Your task to perform on an android device: Open Google Maps and go to "Timeline" Image 0: 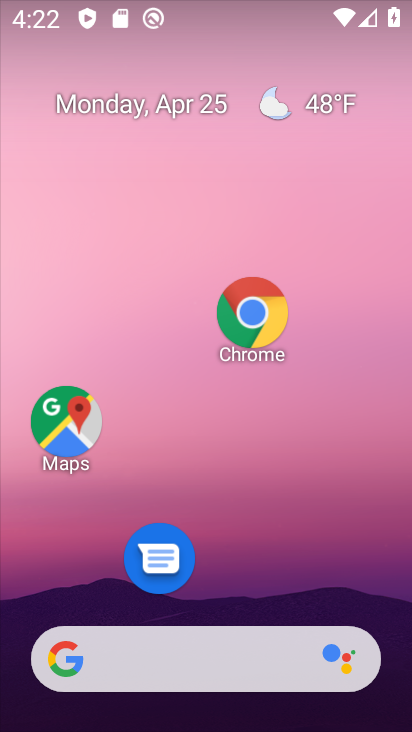
Step 0: drag from (350, 386) to (408, 484)
Your task to perform on an android device: Open Google Maps and go to "Timeline" Image 1: 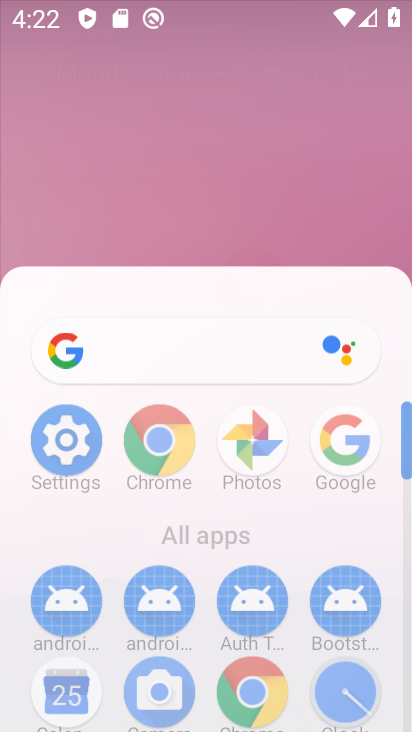
Step 1: drag from (362, 403) to (410, 211)
Your task to perform on an android device: Open Google Maps and go to "Timeline" Image 2: 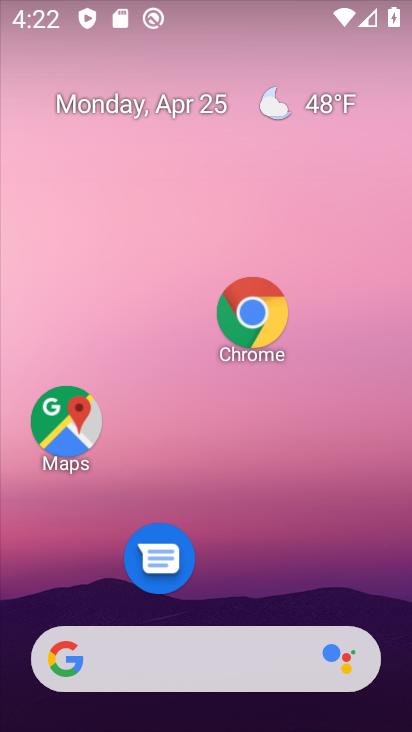
Step 2: drag from (389, 369) to (372, 89)
Your task to perform on an android device: Open Google Maps and go to "Timeline" Image 3: 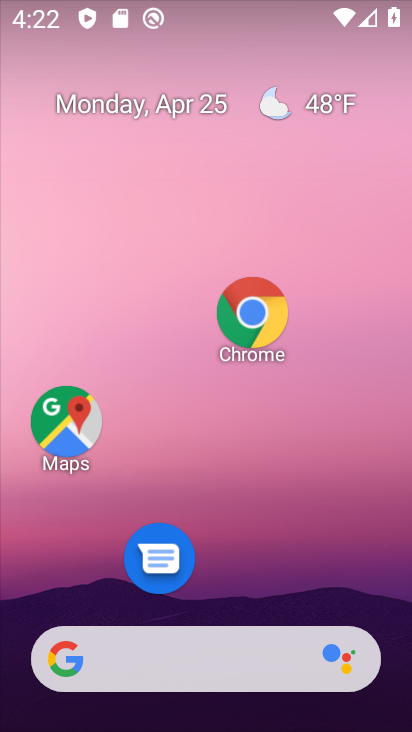
Step 3: drag from (371, 556) to (319, 45)
Your task to perform on an android device: Open Google Maps and go to "Timeline" Image 4: 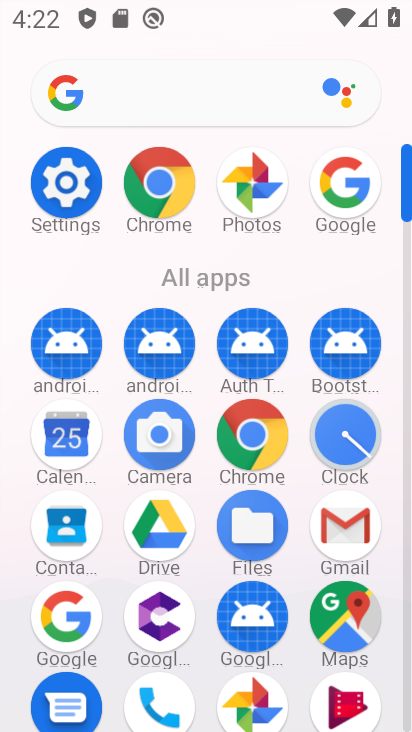
Step 4: drag from (388, 538) to (345, 244)
Your task to perform on an android device: Open Google Maps and go to "Timeline" Image 5: 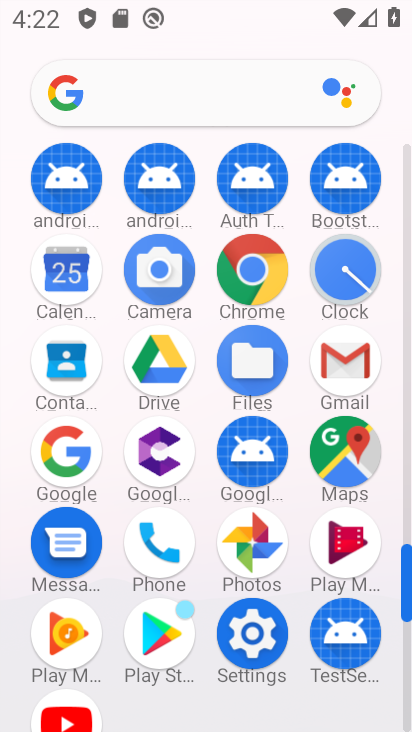
Step 5: click (337, 486)
Your task to perform on an android device: Open Google Maps and go to "Timeline" Image 6: 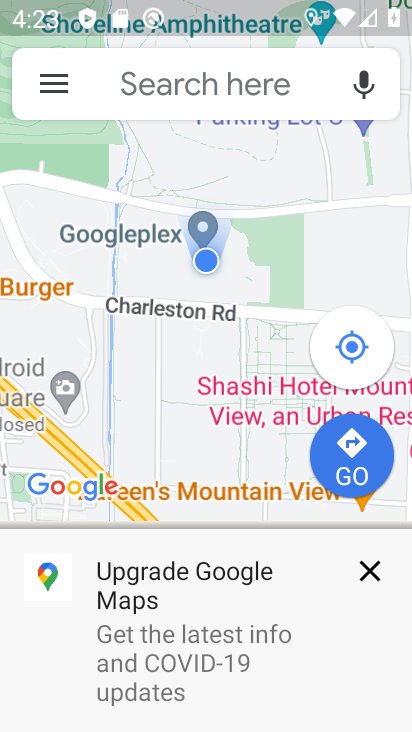
Step 6: click (44, 88)
Your task to perform on an android device: Open Google Maps and go to "Timeline" Image 7: 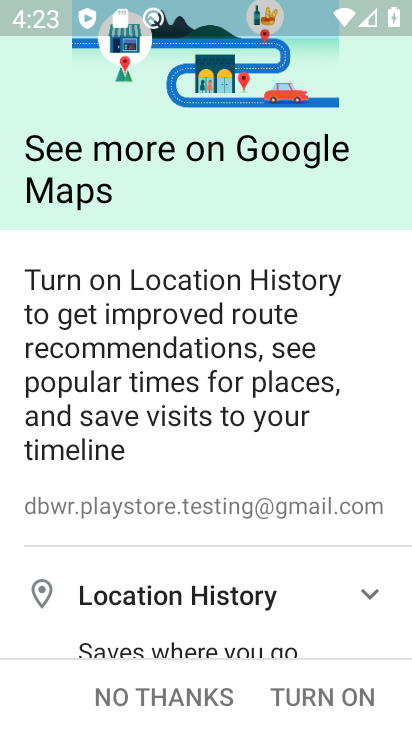
Step 7: click (195, 719)
Your task to perform on an android device: Open Google Maps and go to "Timeline" Image 8: 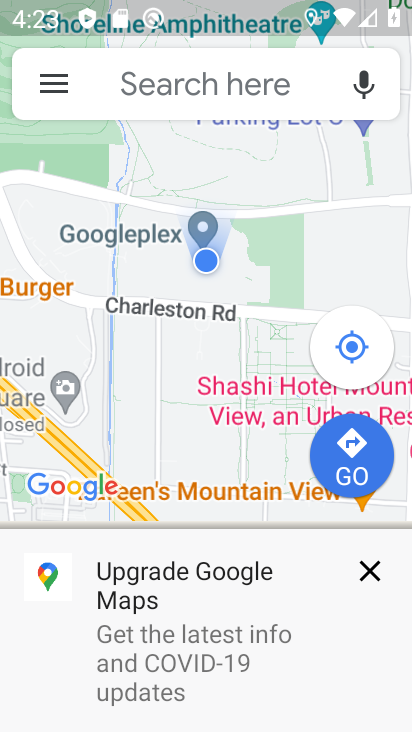
Step 8: click (48, 95)
Your task to perform on an android device: Open Google Maps and go to "Timeline" Image 9: 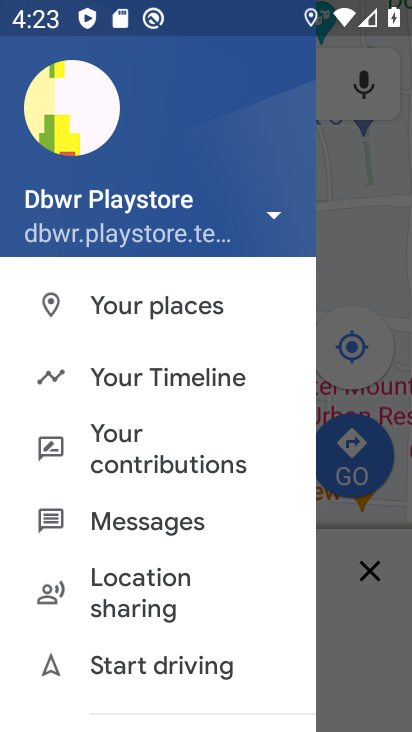
Step 9: click (153, 388)
Your task to perform on an android device: Open Google Maps and go to "Timeline" Image 10: 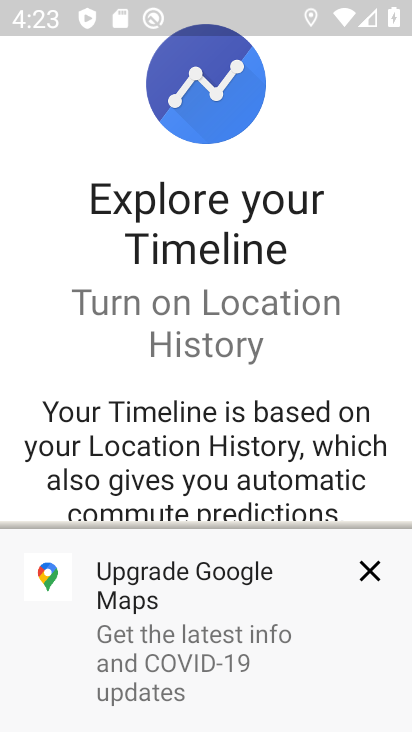
Step 10: task complete